Your task to perform on an android device: open app "Microsoft Outlook" Image 0: 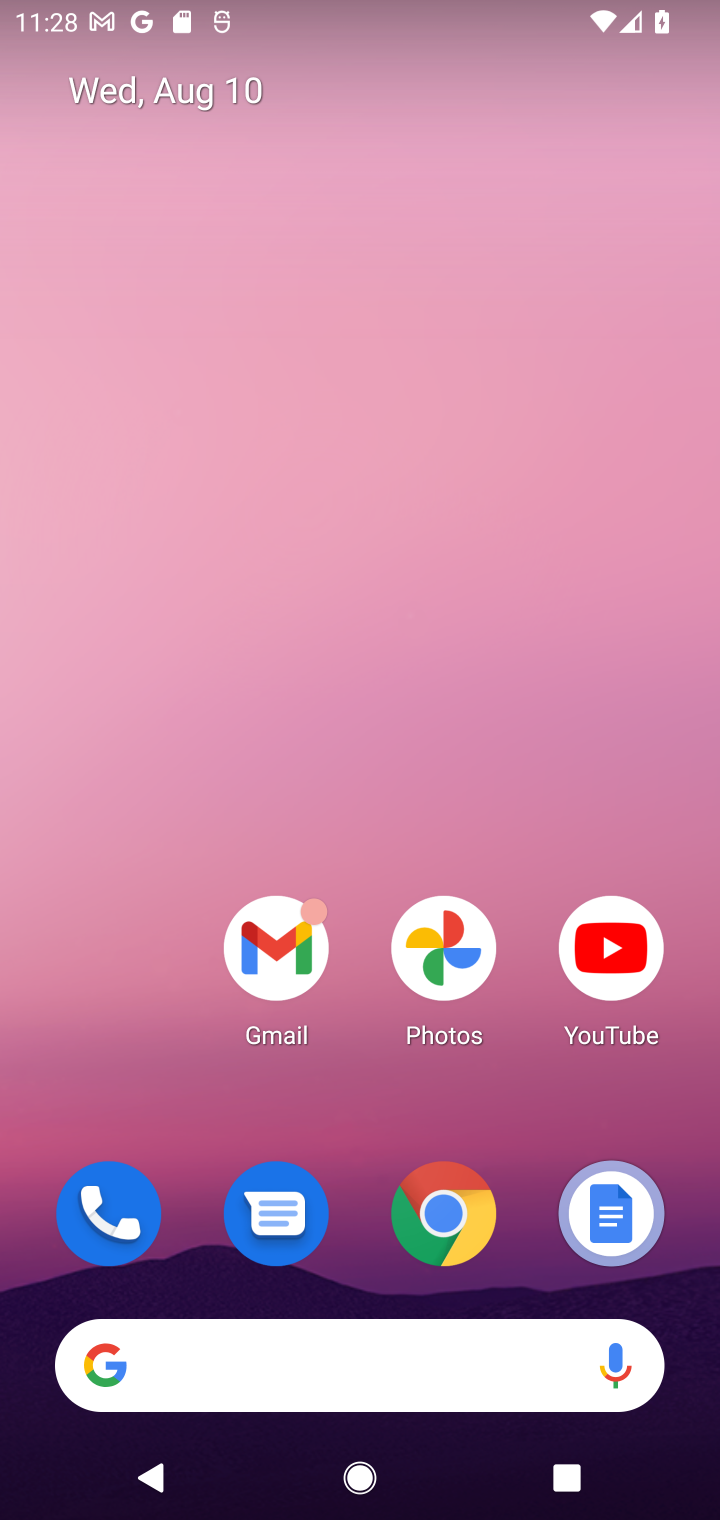
Step 0: drag from (294, 1373) to (334, 451)
Your task to perform on an android device: open app "Microsoft Outlook" Image 1: 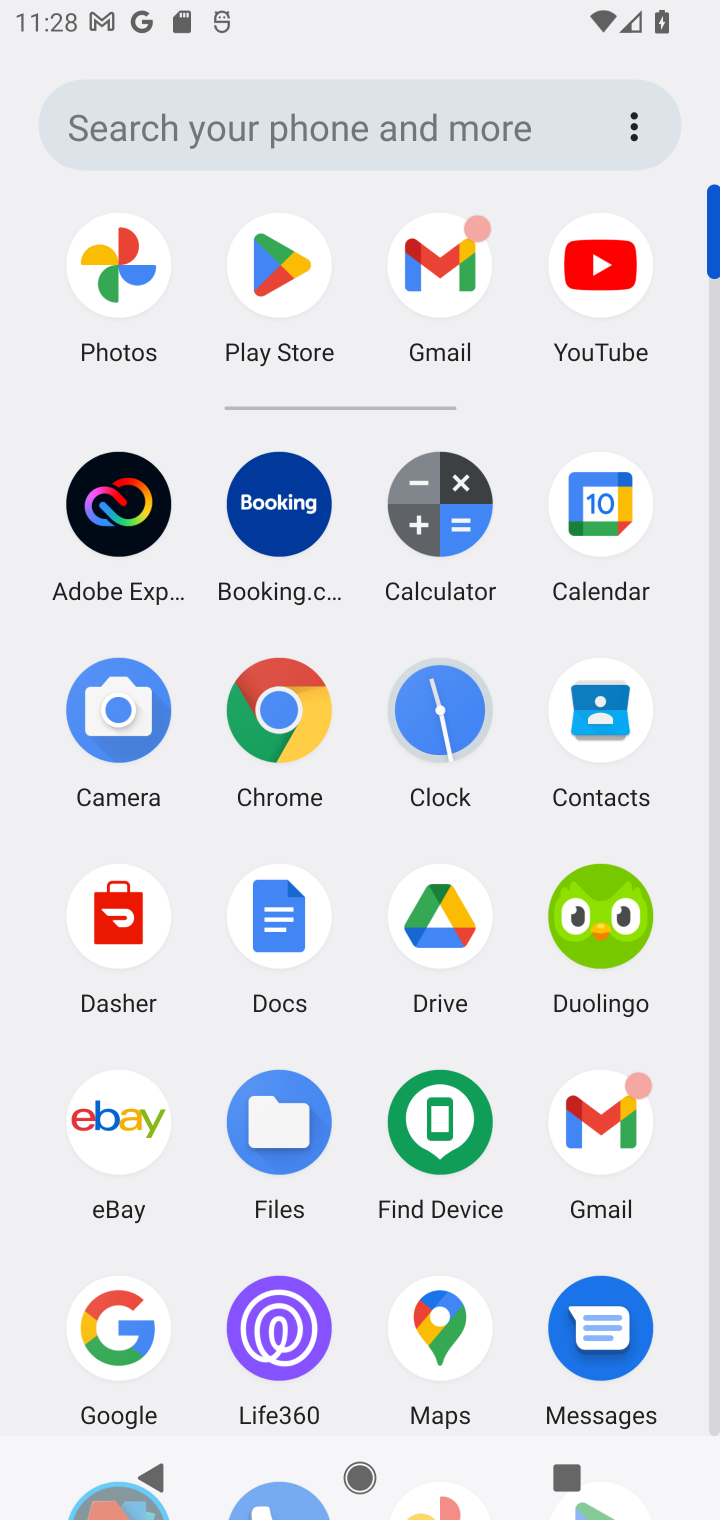
Step 1: click (279, 279)
Your task to perform on an android device: open app "Microsoft Outlook" Image 2: 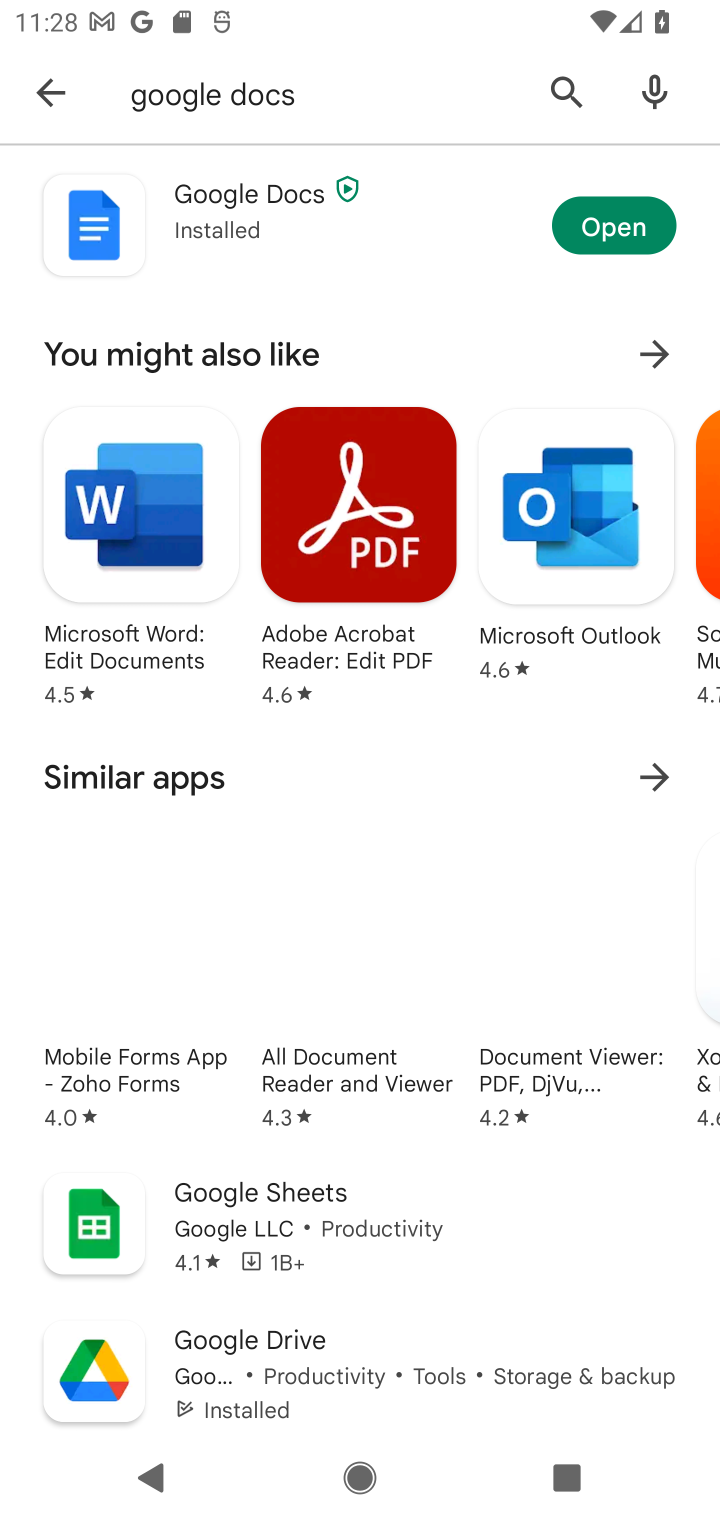
Step 2: press back button
Your task to perform on an android device: open app "Microsoft Outlook" Image 3: 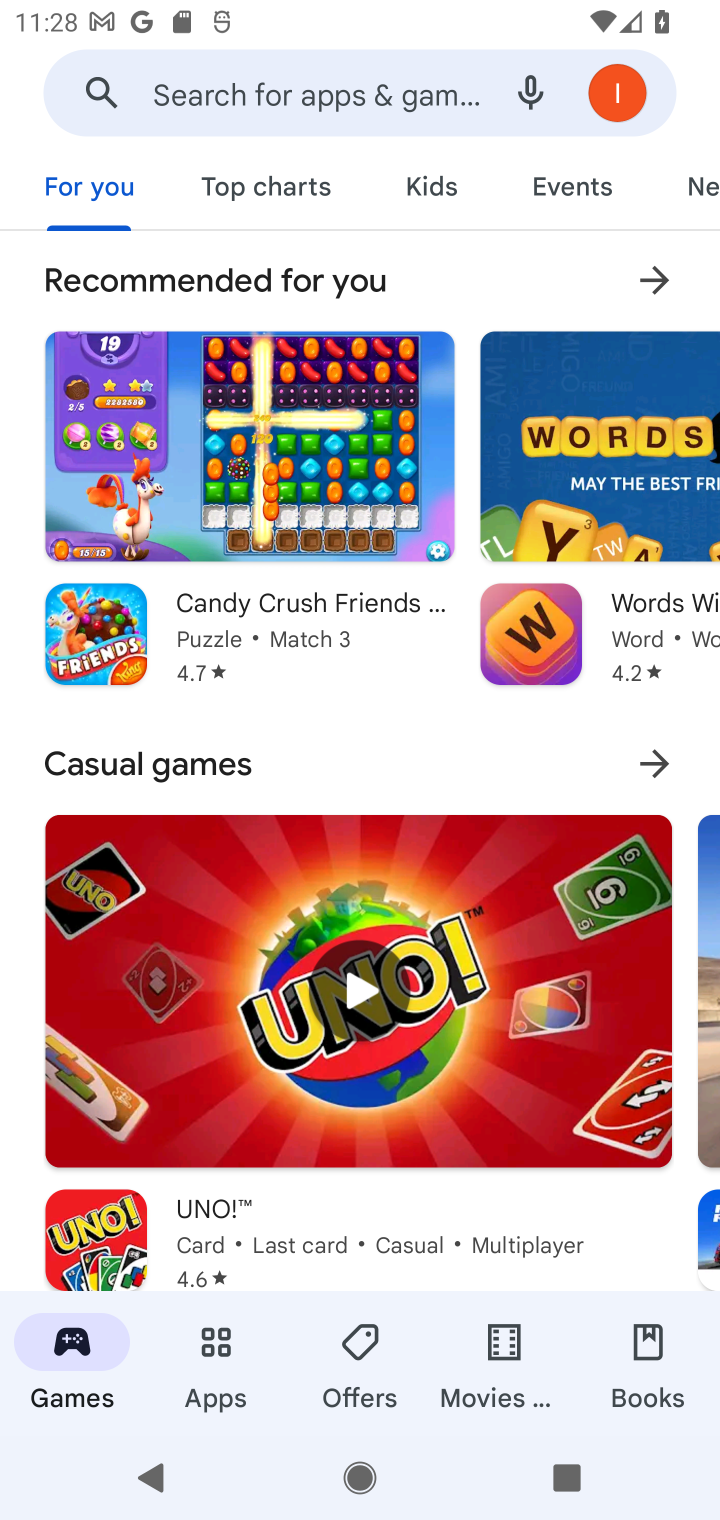
Step 3: click (376, 96)
Your task to perform on an android device: open app "Microsoft Outlook" Image 4: 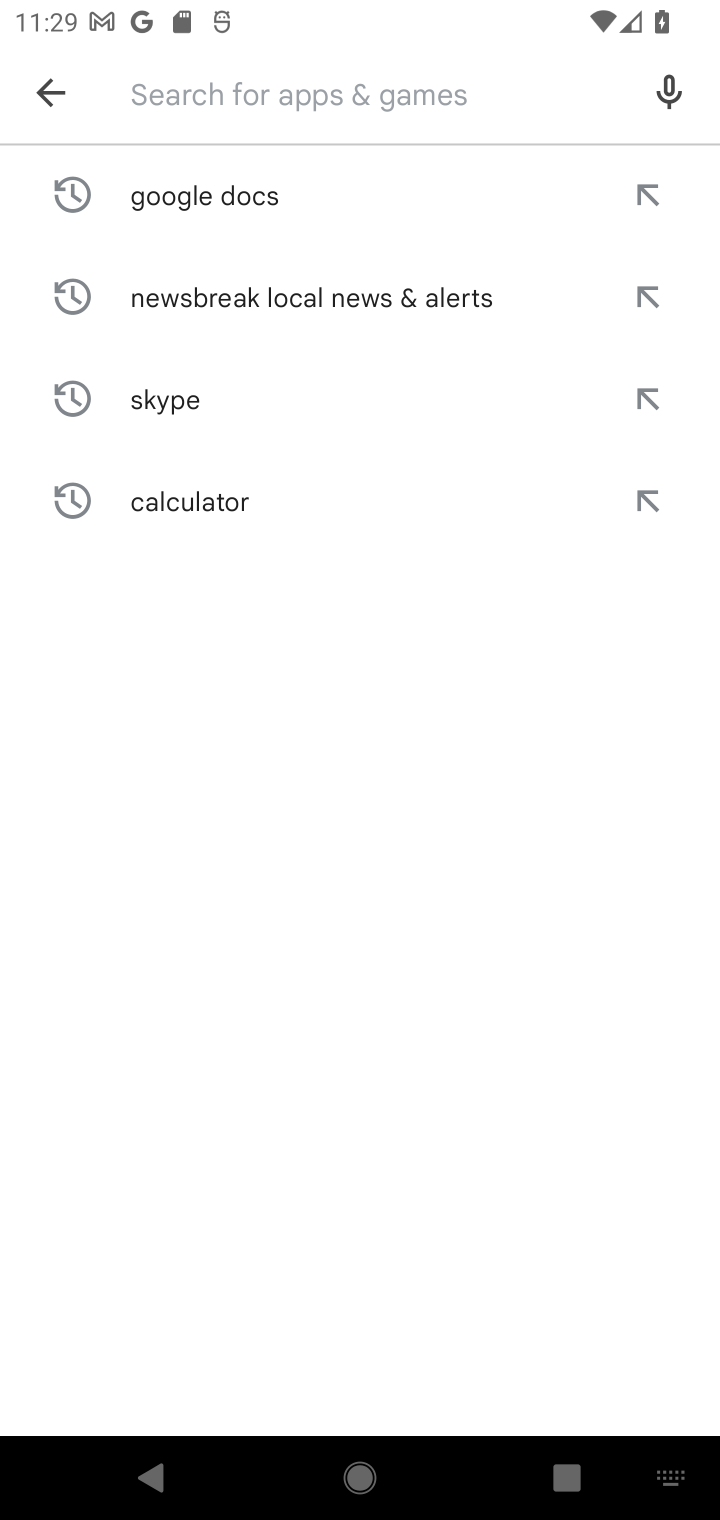
Step 4: click (371, 120)
Your task to perform on an android device: open app "Microsoft Outlook" Image 5: 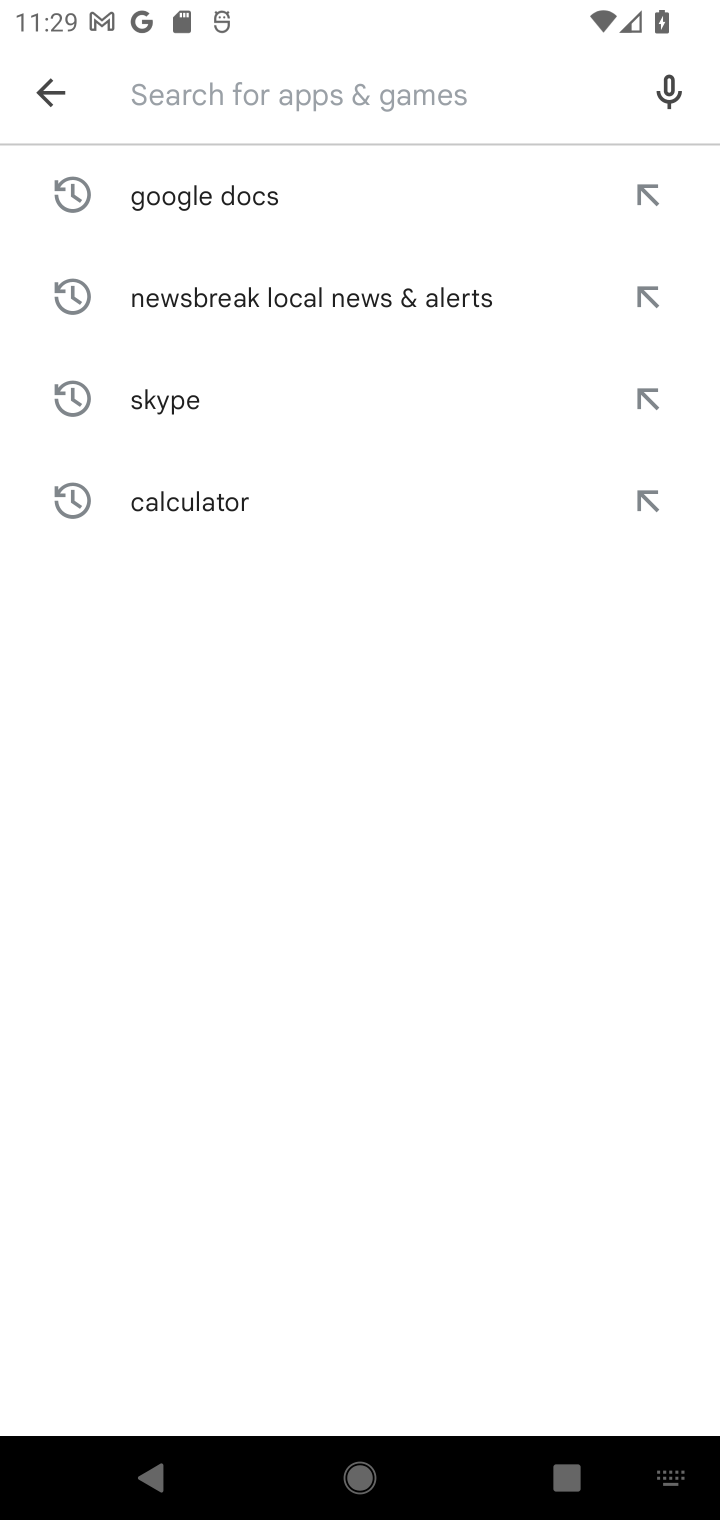
Step 5: type "Microsoft Outlook"
Your task to perform on an android device: open app "Microsoft Outlook" Image 6: 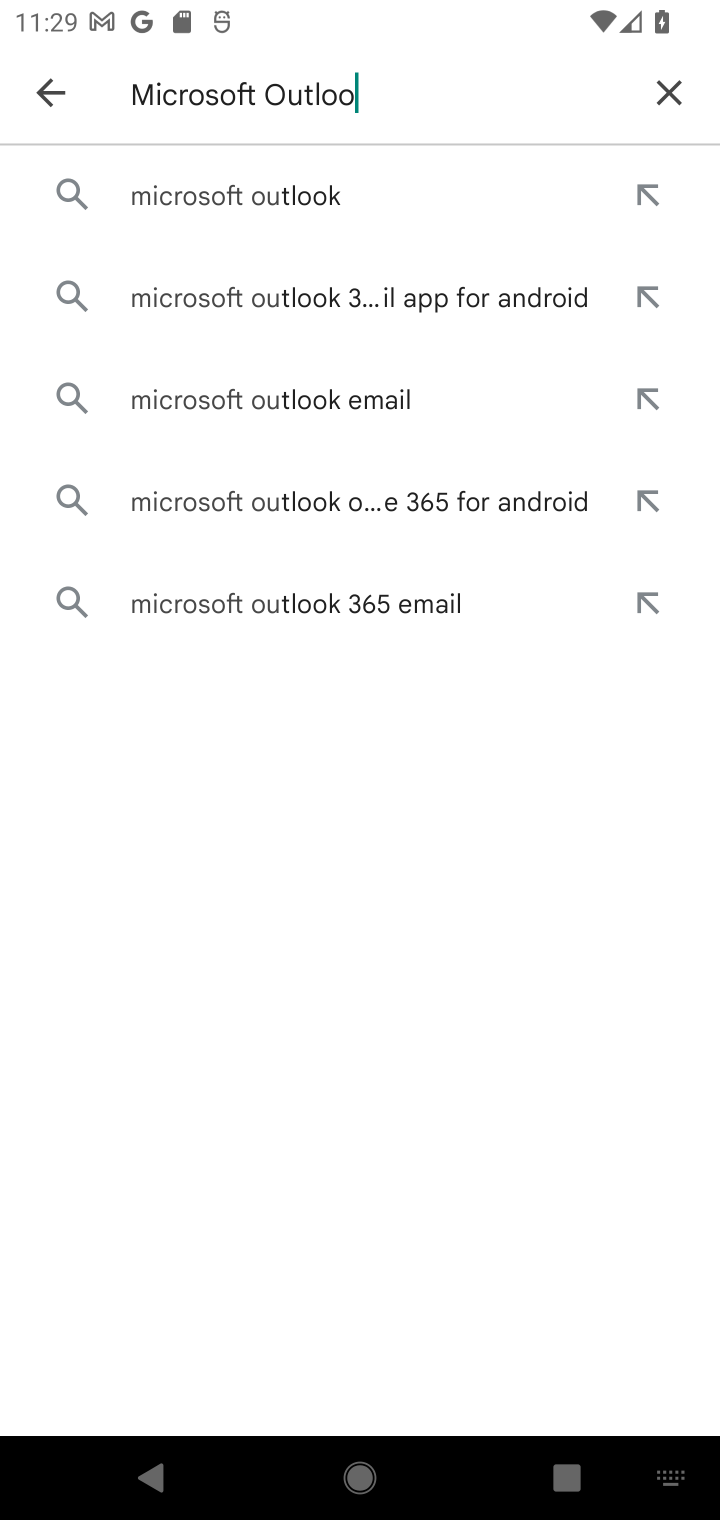
Step 6: type ""
Your task to perform on an android device: open app "Microsoft Outlook" Image 7: 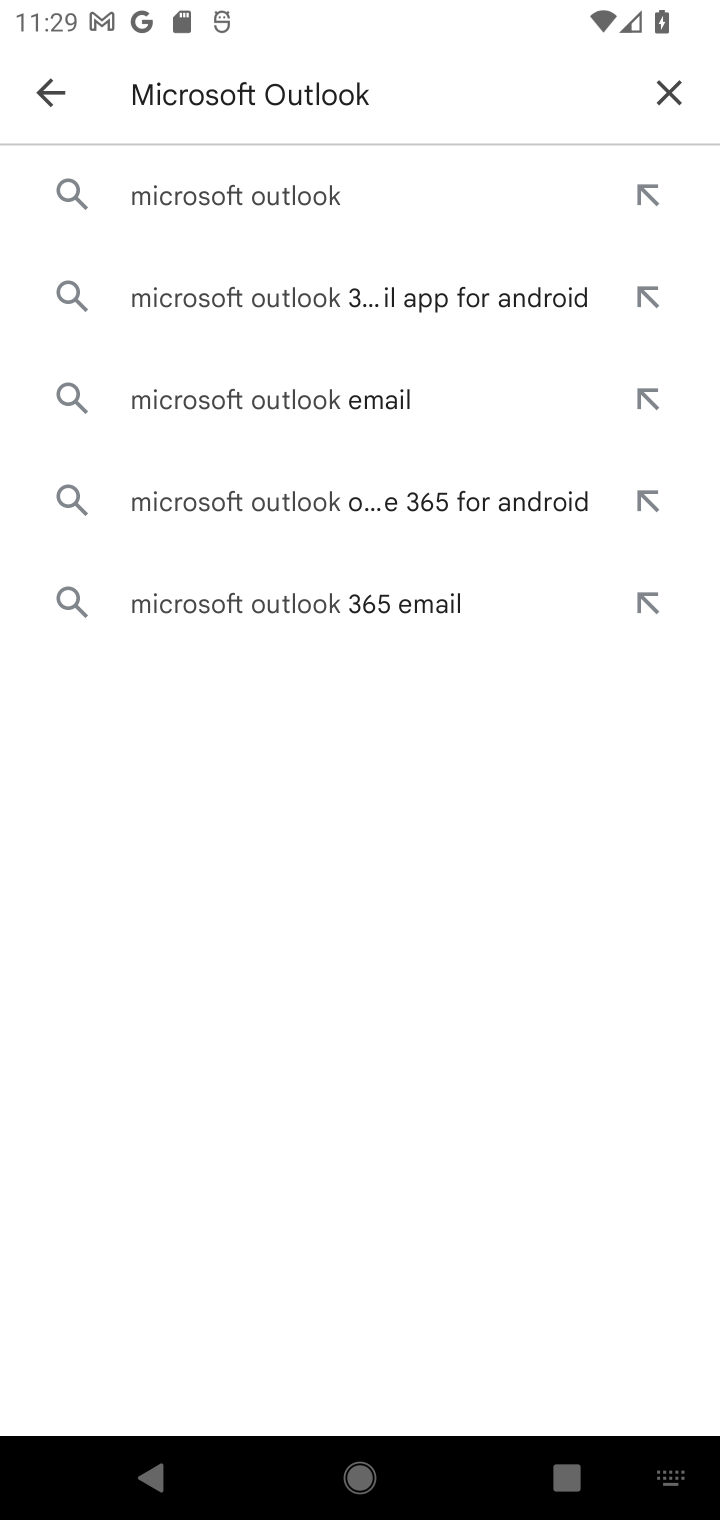
Step 7: click (310, 199)
Your task to perform on an android device: open app "Microsoft Outlook" Image 8: 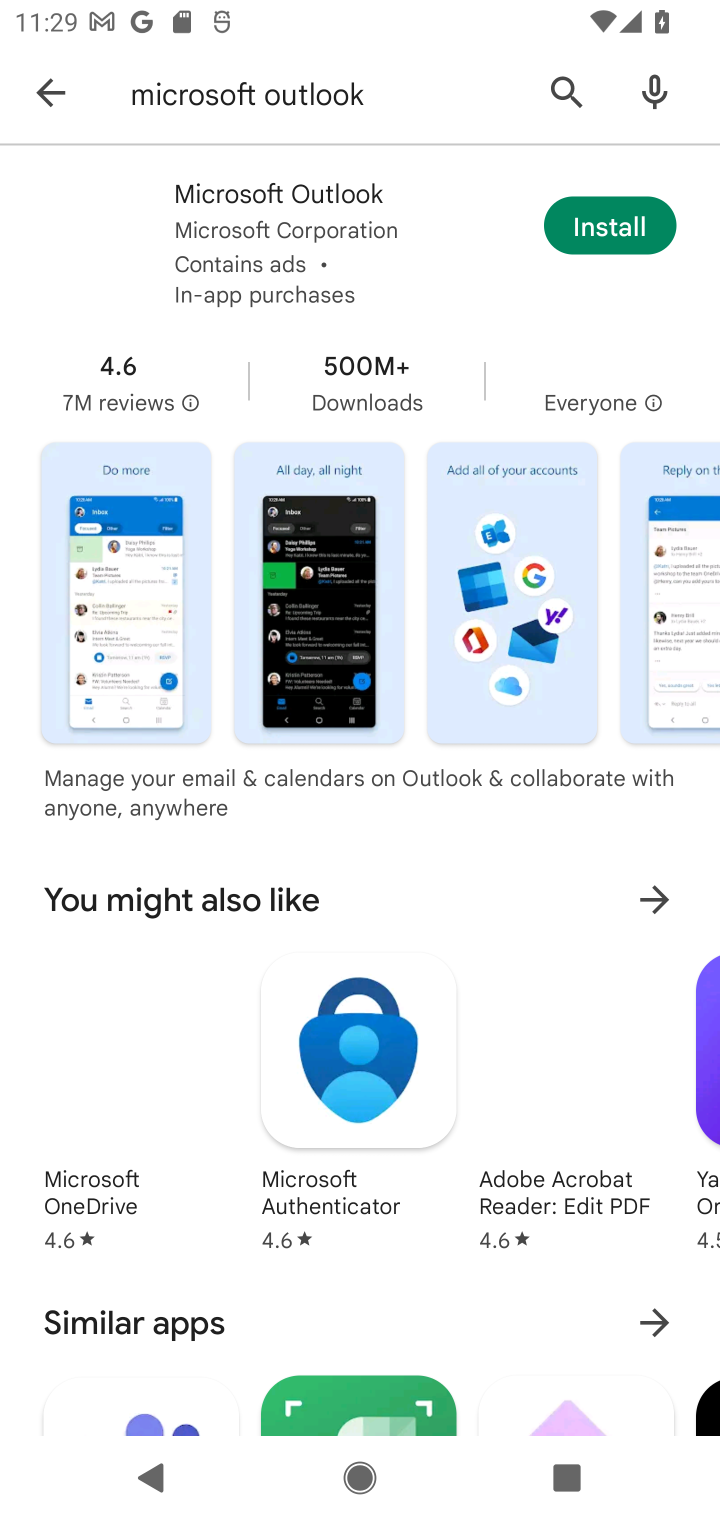
Step 8: task complete